Your task to perform on an android device: Open the phone app and click the voicemail tab. Image 0: 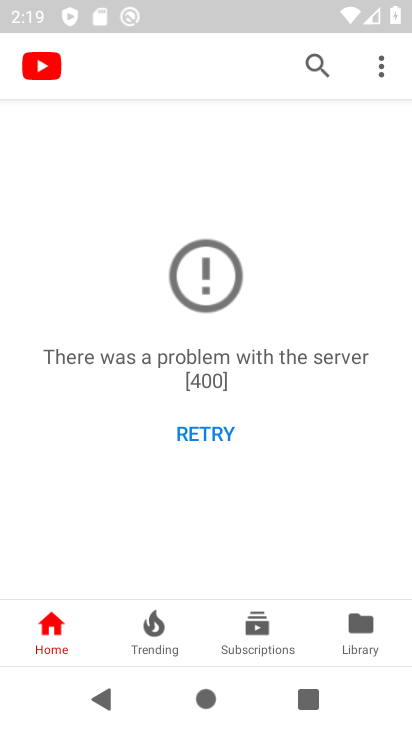
Step 0: press home button
Your task to perform on an android device: Open the phone app and click the voicemail tab. Image 1: 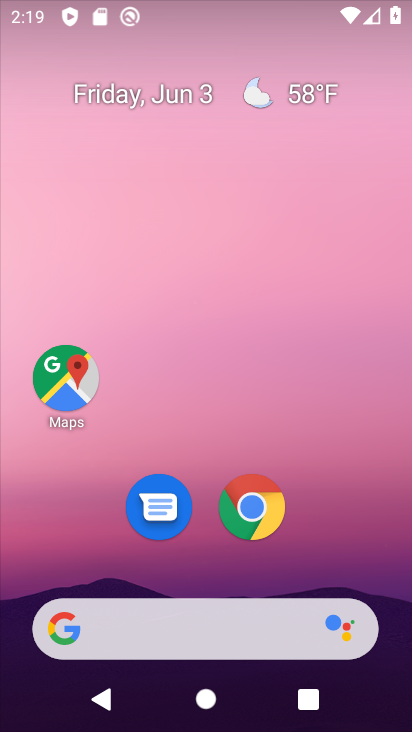
Step 1: drag from (214, 548) to (220, 349)
Your task to perform on an android device: Open the phone app and click the voicemail tab. Image 2: 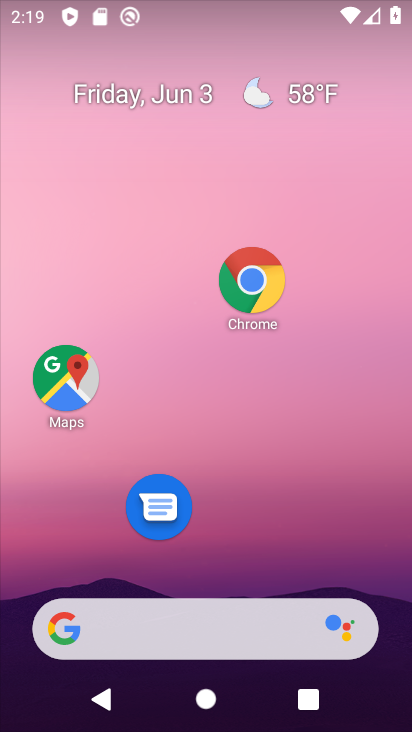
Step 2: drag from (250, 535) to (266, 26)
Your task to perform on an android device: Open the phone app and click the voicemail tab. Image 3: 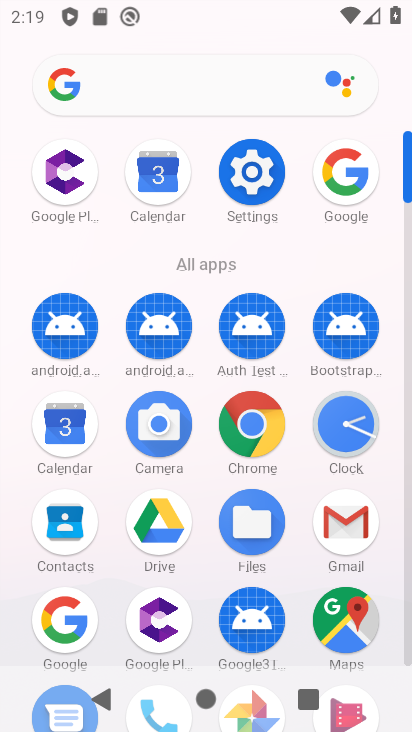
Step 3: drag from (105, 568) to (134, 111)
Your task to perform on an android device: Open the phone app and click the voicemail tab. Image 4: 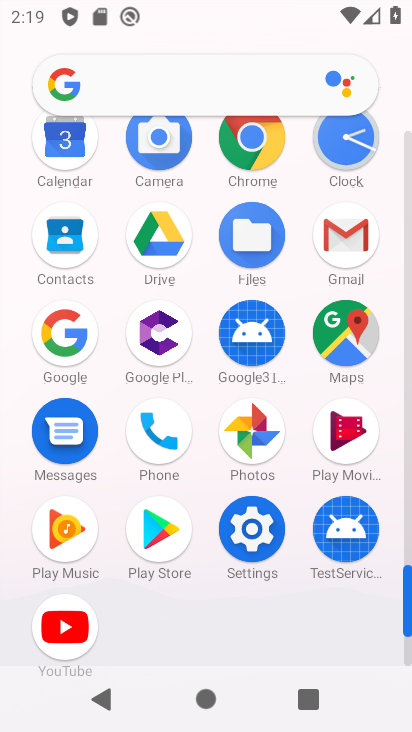
Step 4: click (163, 444)
Your task to perform on an android device: Open the phone app and click the voicemail tab. Image 5: 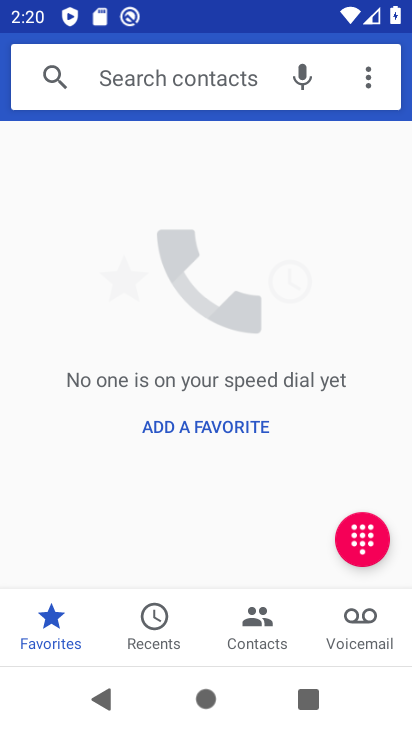
Step 5: click (344, 641)
Your task to perform on an android device: Open the phone app and click the voicemail tab. Image 6: 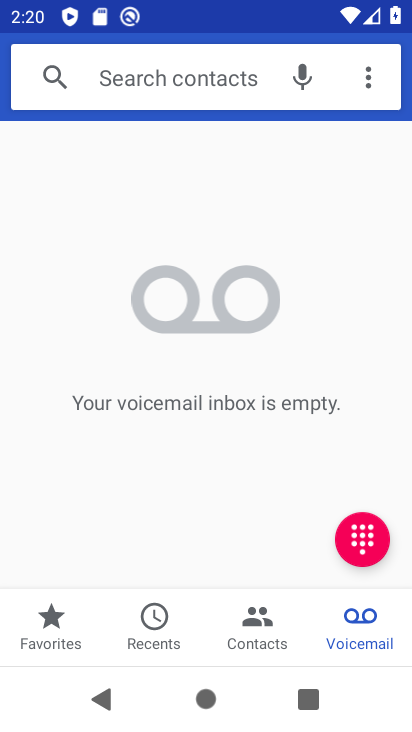
Step 6: task complete